Your task to perform on an android device: Search for sushi restaurants on Maps Image 0: 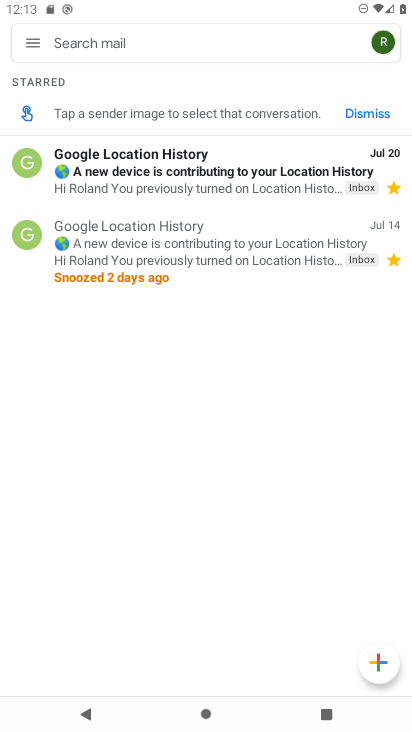
Step 0: press home button
Your task to perform on an android device: Search for sushi restaurants on Maps Image 1: 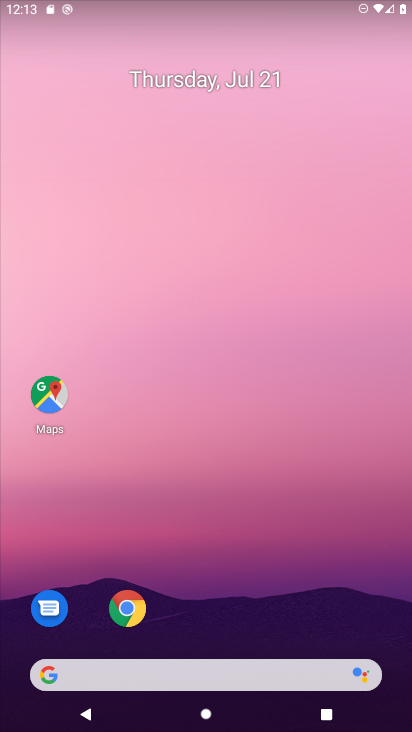
Step 1: click (52, 402)
Your task to perform on an android device: Search for sushi restaurants on Maps Image 2: 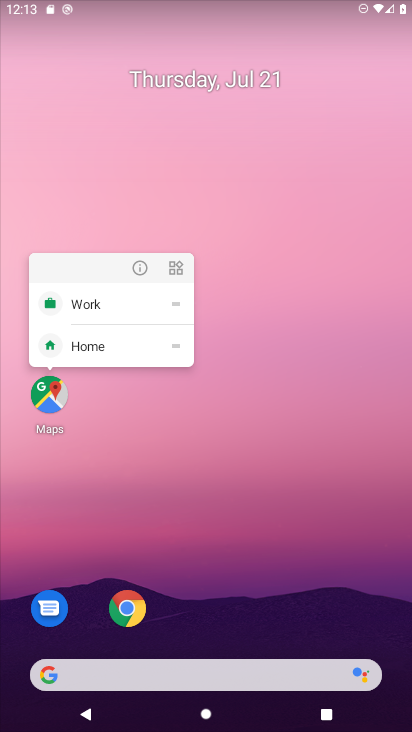
Step 2: click (52, 402)
Your task to perform on an android device: Search for sushi restaurants on Maps Image 3: 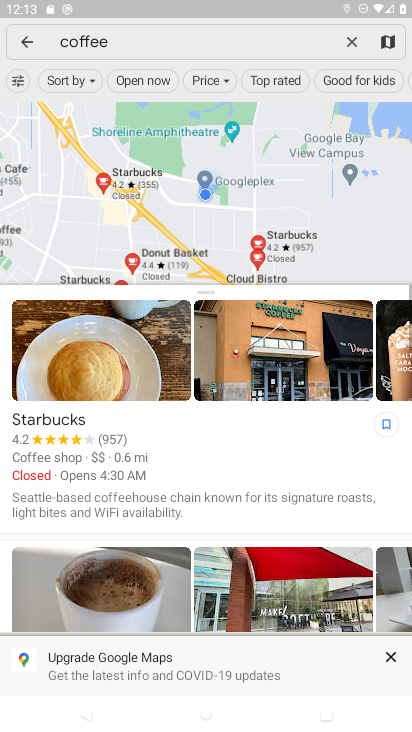
Step 3: click (349, 40)
Your task to perform on an android device: Search for sushi restaurants on Maps Image 4: 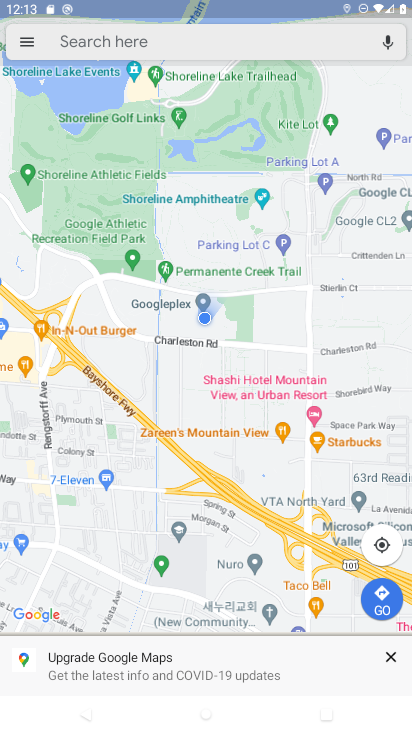
Step 4: type "sushi restaurants"
Your task to perform on an android device: Search for sushi restaurants on Maps Image 5: 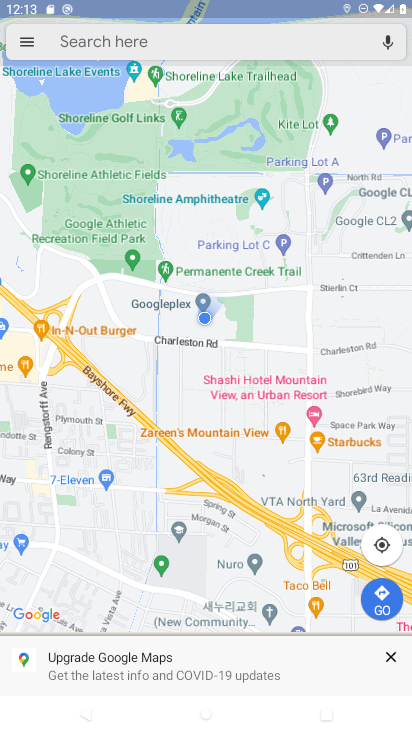
Step 5: click (106, 44)
Your task to perform on an android device: Search for sushi restaurants on Maps Image 6: 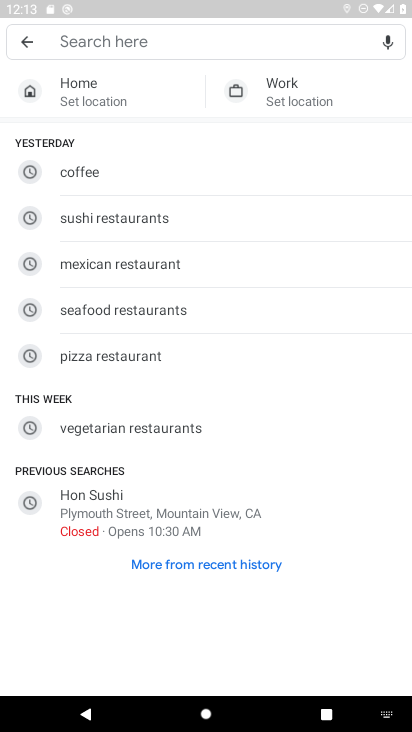
Step 6: click (162, 219)
Your task to perform on an android device: Search for sushi restaurants on Maps Image 7: 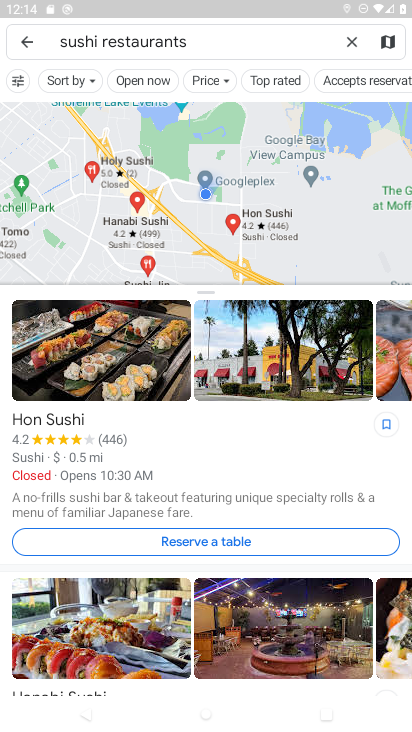
Step 7: task complete